Your task to perform on an android device: Open privacy settings Image 0: 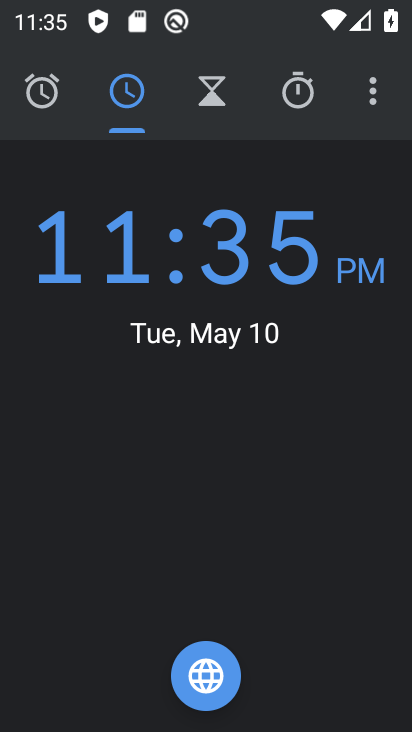
Step 0: press home button
Your task to perform on an android device: Open privacy settings Image 1: 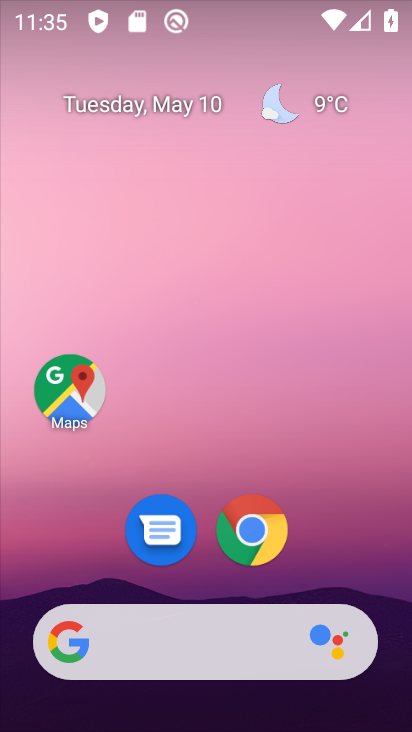
Step 1: drag from (331, 618) to (340, 215)
Your task to perform on an android device: Open privacy settings Image 2: 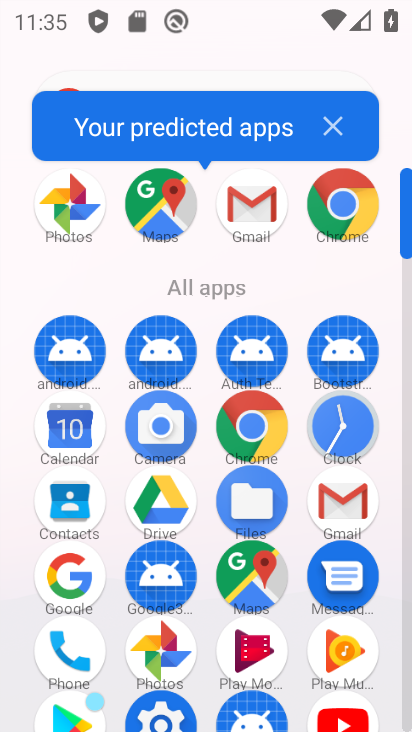
Step 2: click (341, 211)
Your task to perform on an android device: Open privacy settings Image 3: 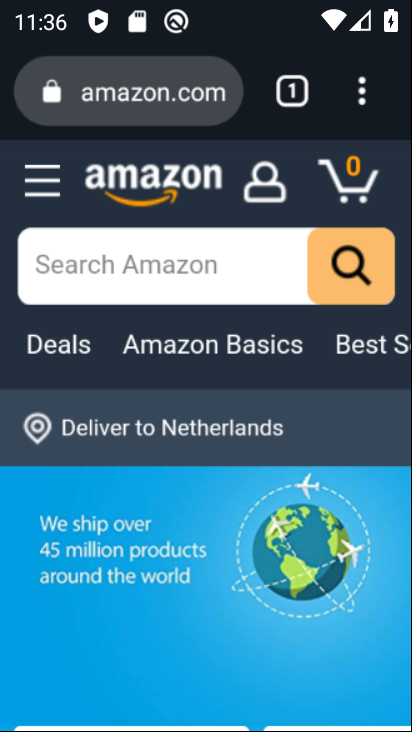
Step 3: press back button
Your task to perform on an android device: Open privacy settings Image 4: 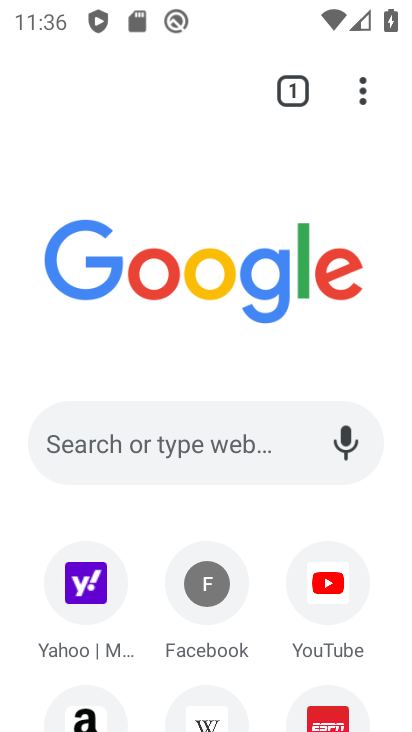
Step 4: press back button
Your task to perform on an android device: Open privacy settings Image 5: 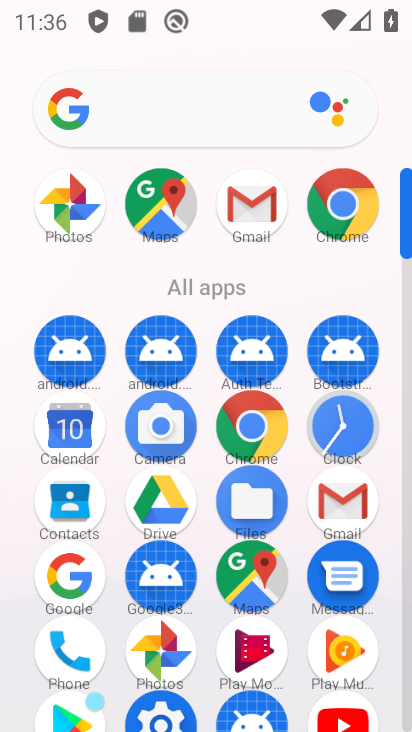
Step 5: click (170, 718)
Your task to perform on an android device: Open privacy settings Image 6: 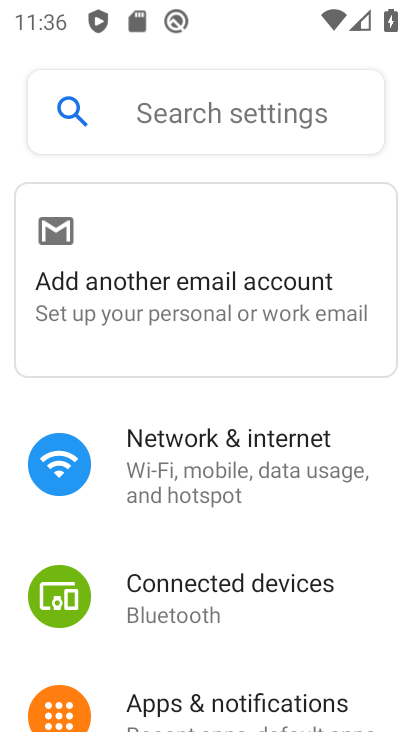
Step 6: drag from (150, 616) to (286, 1)
Your task to perform on an android device: Open privacy settings Image 7: 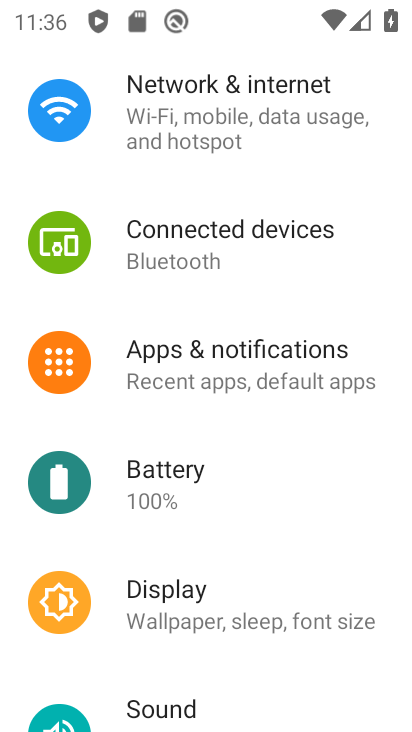
Step 7: drag from (202, 697) to (233, 205)
Your task to perform on an android device: Open privacy settings Image 8: 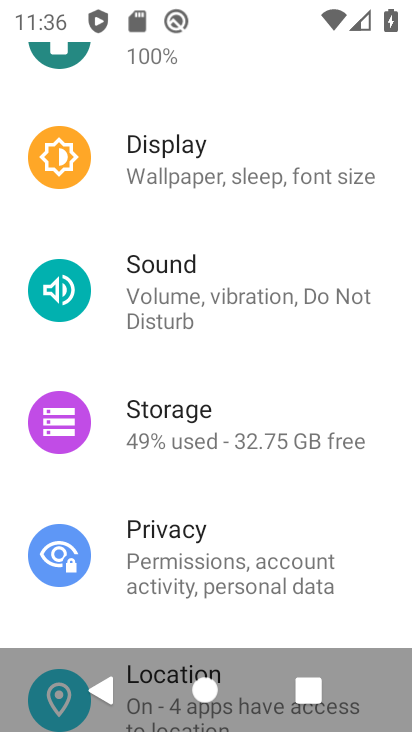
Step 8: click (158, 562)
Your task to perform on an android device: Open privacy settings Image 9: 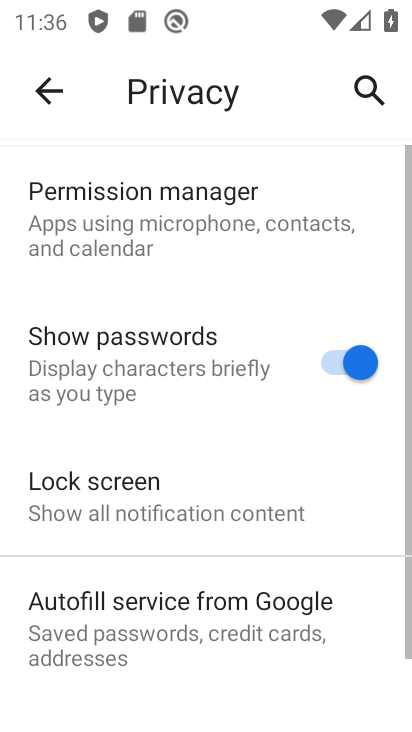
Step 9: task complete